Your task to perform on an android device: turn on translation in the chrome app Image 0: 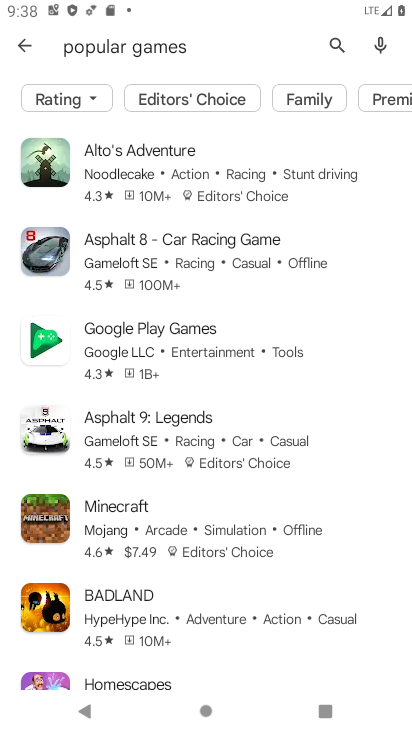
Step 0: press home button
Your task to perform on an android device: turn on translation in the chrome app Image 1: 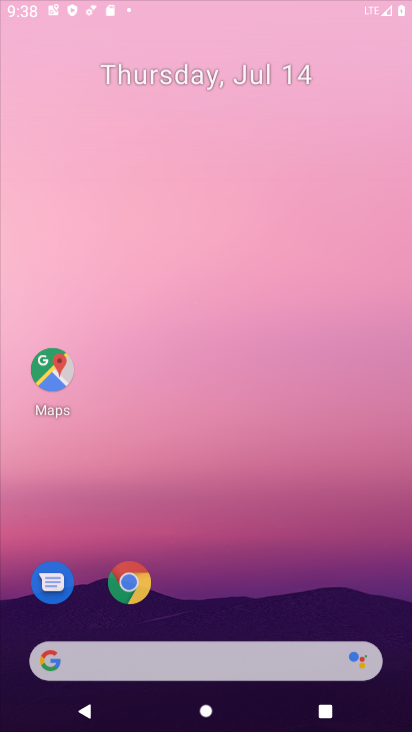
Step 1: drag from (389, 670) to (312, 87)
Your task to perform on an android device: turn on translation in the chrome app Image 2: 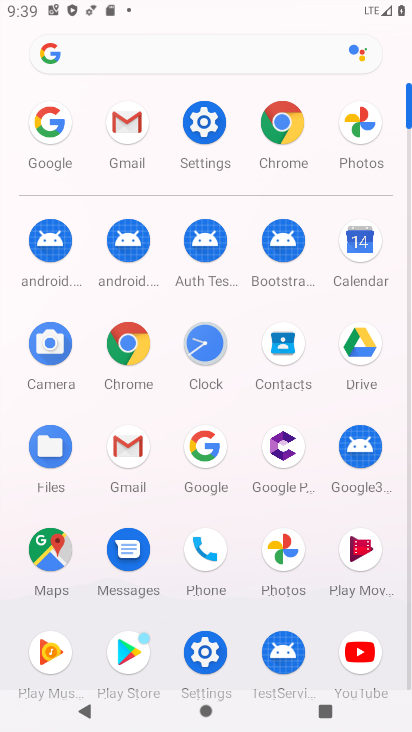
Step 2: click (149, 344)
Your task to perform on an android device: turn on translation in the chrome app Image 3: 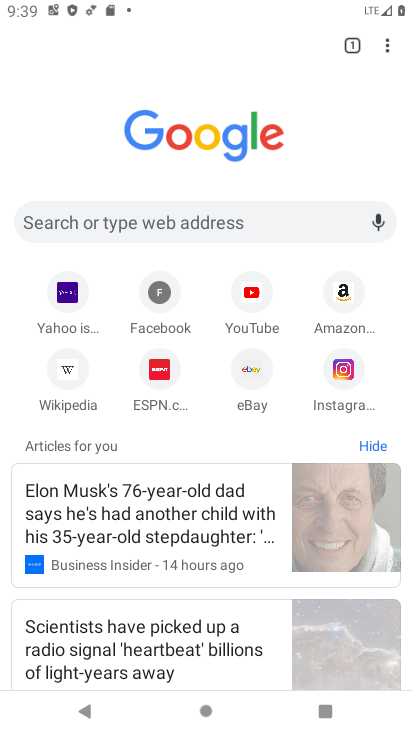
Step 3: click (382, 48)
Your task to perform on an android device: turn on translation in the chrome app Image 4: 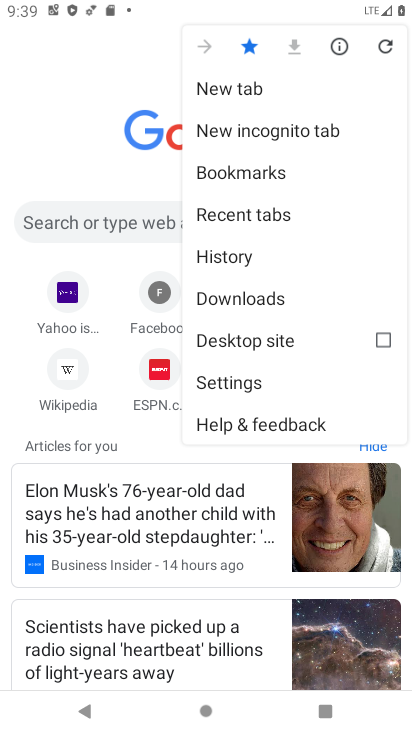
Step 4: click (239, 386)
Your task to perform on an android device: turn on translation in the chrome app Image 5: 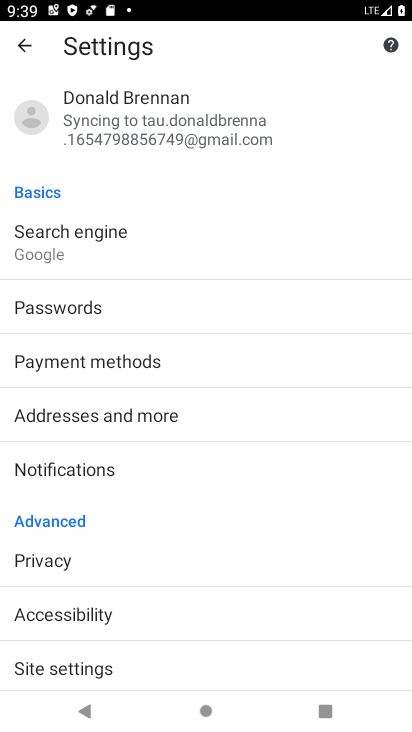
Step 5: drag from (173, 618) to (108, 238)
Your task to perform on an android device: turn on translation in the chrome app Image 6: 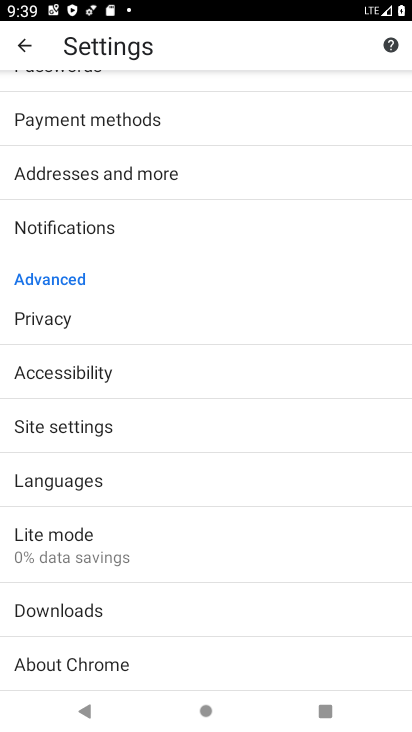
Step 6: click (96, 505)
Your task to perform on an android device: turn on translation in the chrome app Image 7: 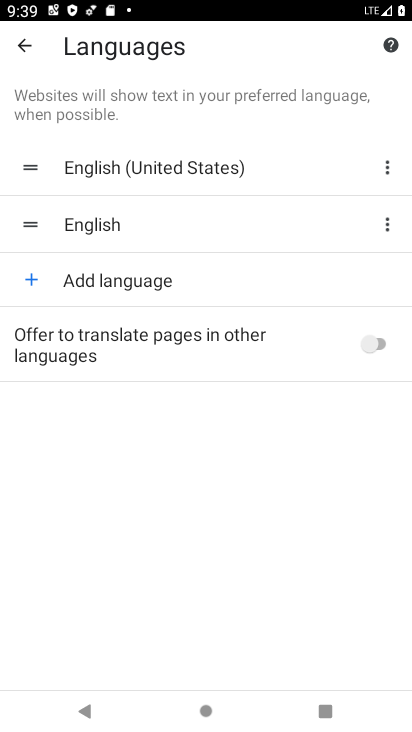
Step 7: click (342, 347)
Your task to perform on an android device: turn on translation in the chrome app Image 8: 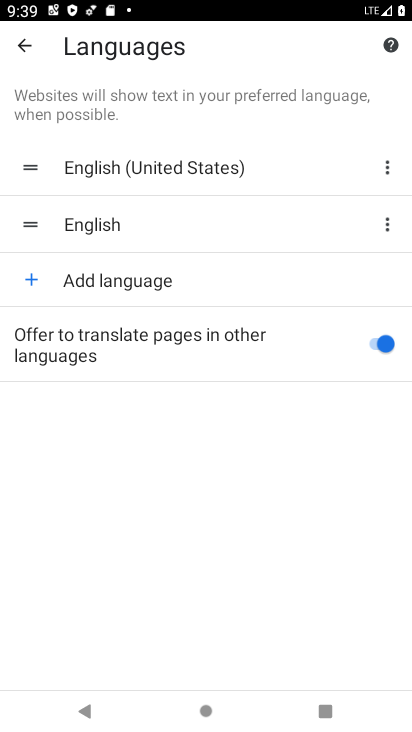
Step 8: task complete